Your task to perform on an android device: Show me productivity apps on the Play Store Image 0: 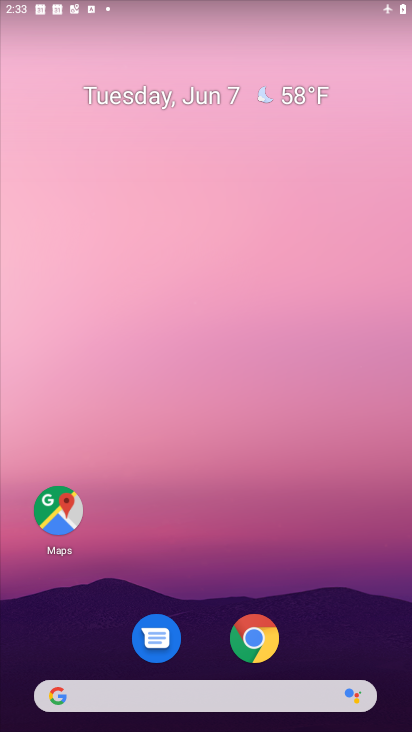
Step 0: drag from (182, 659) to (206, 304)
Your task to perform on an android device: Show me productivity apps on the Play Store Image 1: 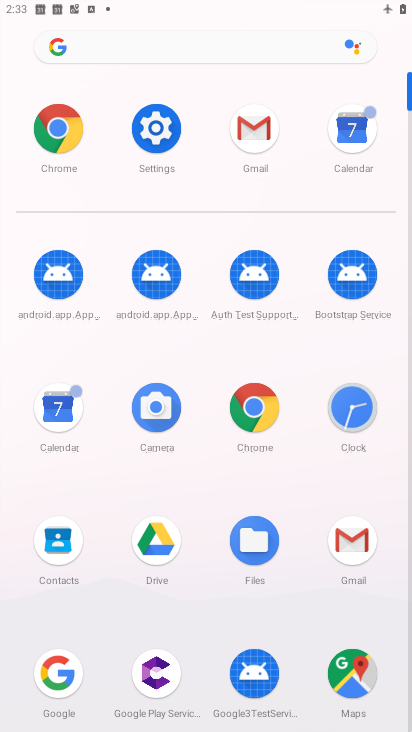
Step 1: drag from (203, 645) to (225, 298)
Your task to perform on an android device: Show me productivity apps on the Play Store Image 2: 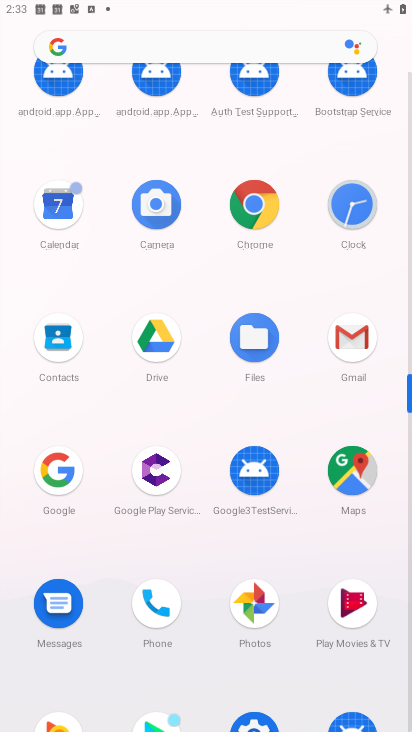
Step 2: drag from (216, 661) to (285, 278)
Your task to perform on an android device: Show me productivity apps on the Play Store Image 3: 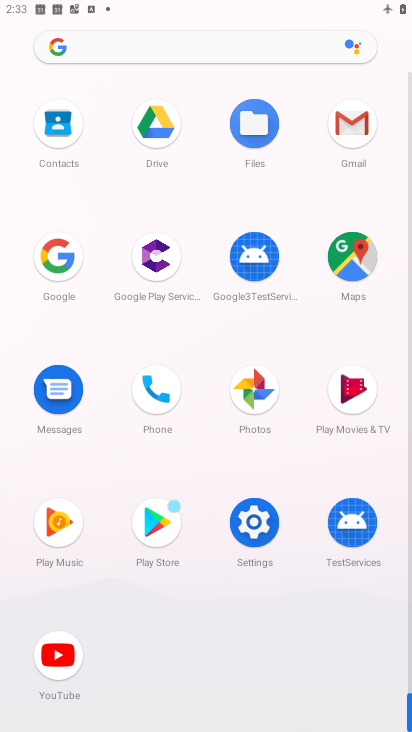
Step 3: click (163, 523)
Your task to perform on an android device: Show me productivity apps on the Play Store Image 4: 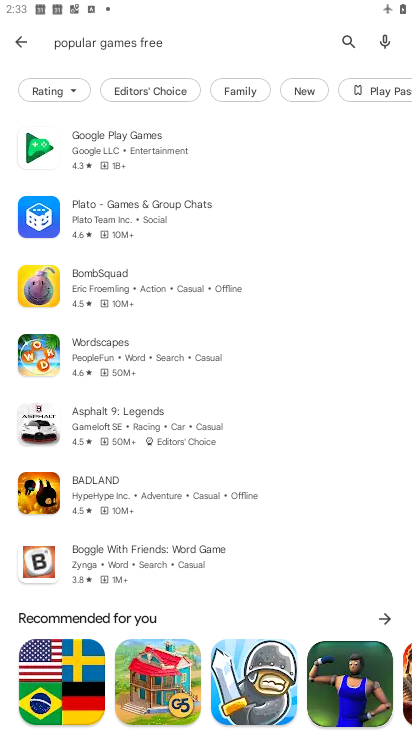
Step 4: click (13, 35)
Your task to perform on an android device: Show me productivity apps on the Play Store Image 5: 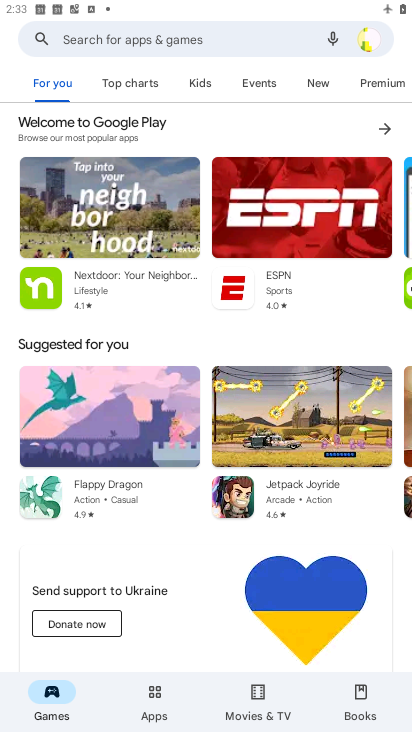
Step 5: click (144, 697)
Your task to perform on an android device: Show me productivity apps on the Play Store Image 6: 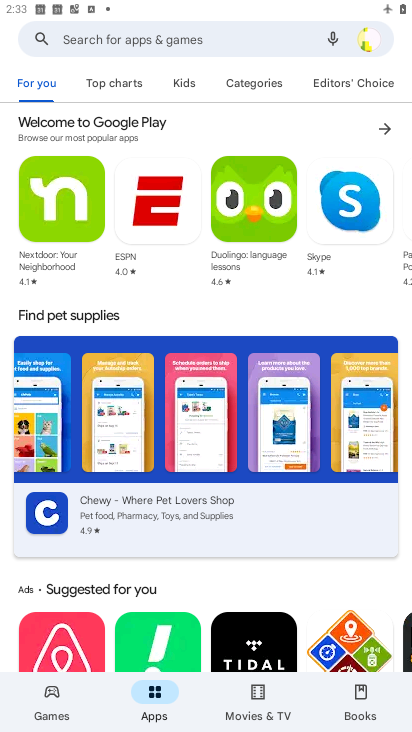
Step 6: click (266, 80)
Your task to perform on an android device: Show me productivity apps on the Play Store Image 7: 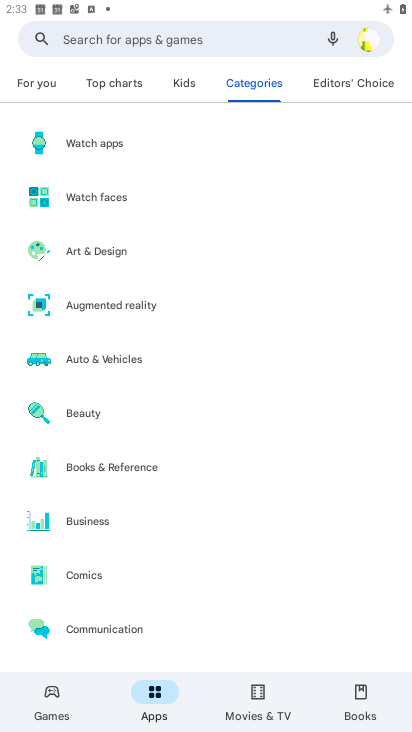
Step 7: drag from (179, 543) to (271, 100)
Your task to perform on an android device: Show me productivity apps on the Play Store Image 8: 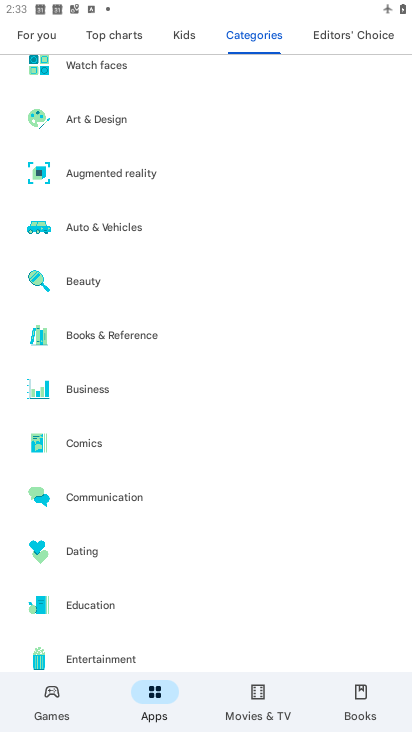
Step 8: drag from (117, 597) to (208, 194)
Your task to perform on an android device: Show me productivity apps on the Play Store Image 9: 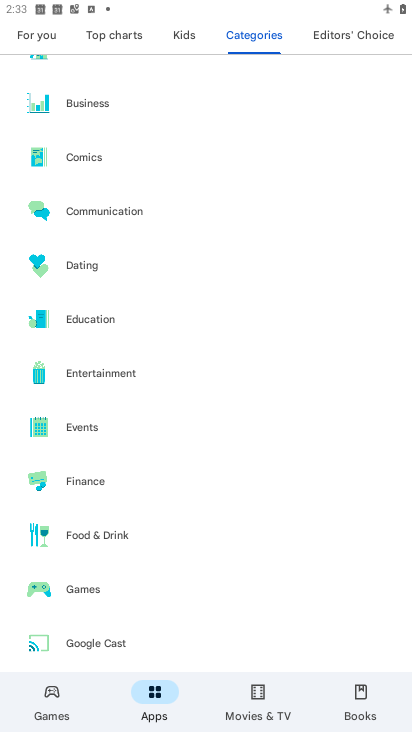
Step 9: drag from (124, 567) to (204, 202)
Your task to perform on an android device: Show me productivity apps on the Play Store Image 10: 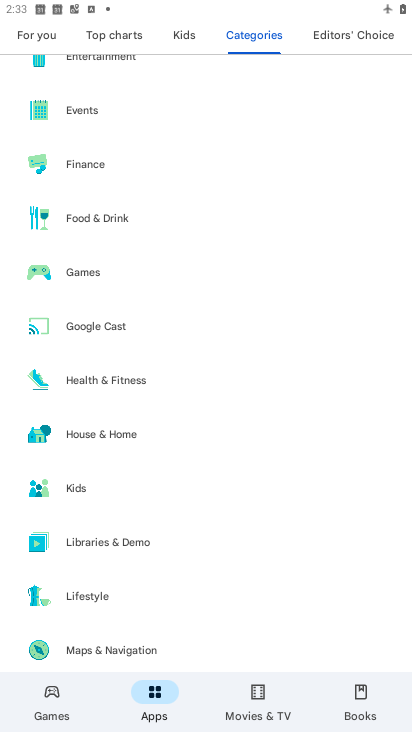
Step 10: drag from (125, 590) to (214, 175)
Your task to perform on an android device: Show me productivity apps on the Play Store Image 11: 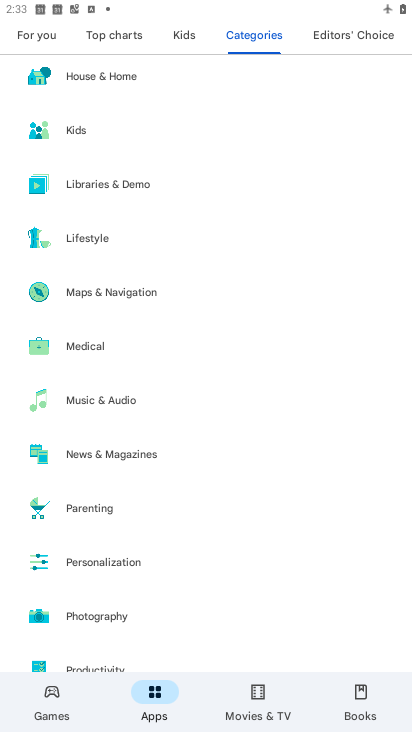
Step 11: drag from (111, 634) to (131, 231)
Your task to perform on an android device: Show me productivity apps on the Play Store Image 12: 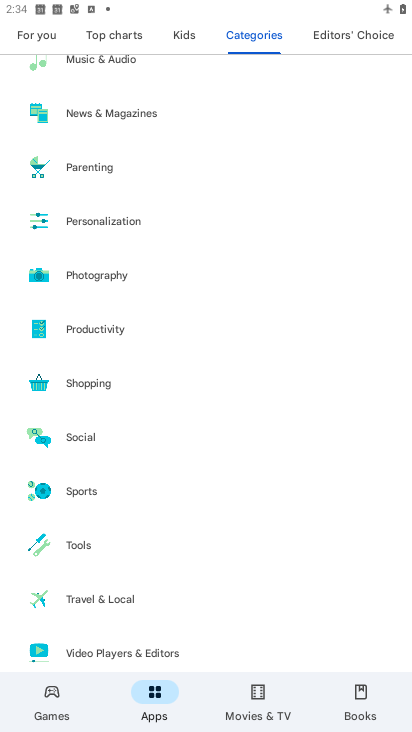
Step 12: click (112, 337)
Your task to perform on an android device: Show me productivity apps on the Play Store Image 13: 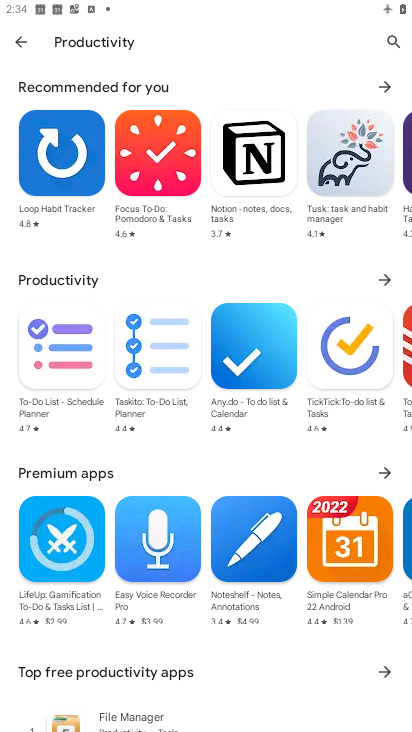
Step 13: task complete